Your task to perform on an android device: Open the phone app and click the voicemail tab. Image 0: 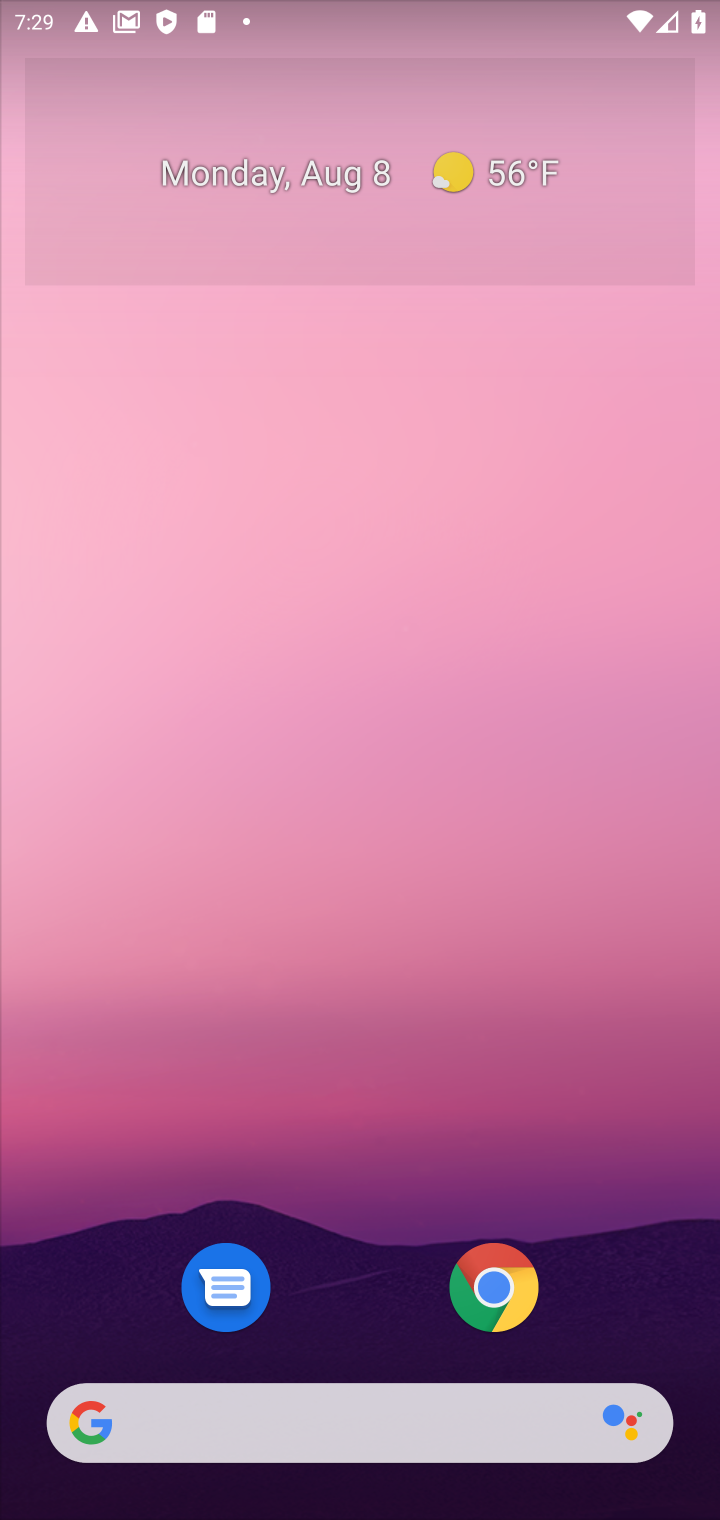
Step 0: drag from (405, 1108) to (468, 41)
Your task to perform on an android device: Open the phone app and click the voicemail tab. Image 1: 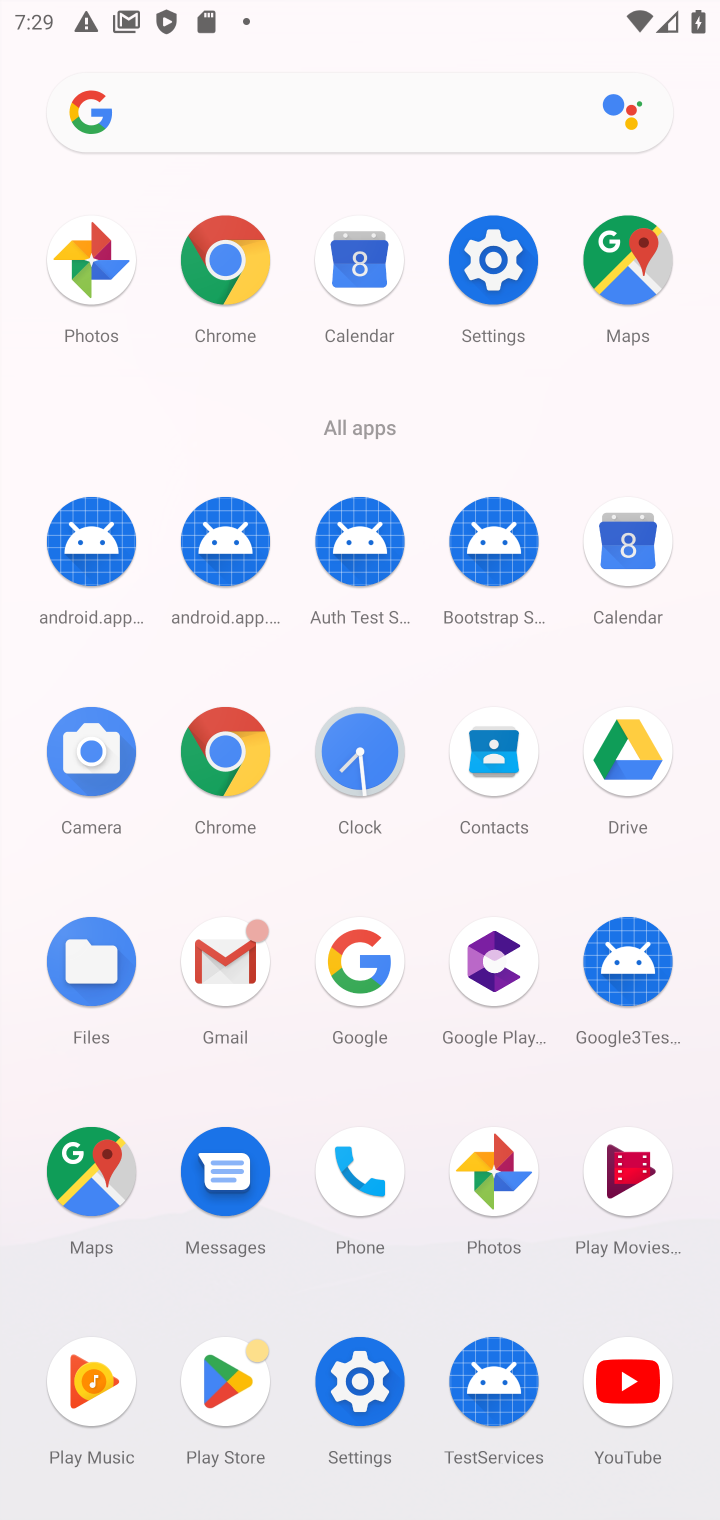
Step 1: click (206, 775)
Your task to perform on an android device: Open the phone app and click the voicemail tab. Image 2: 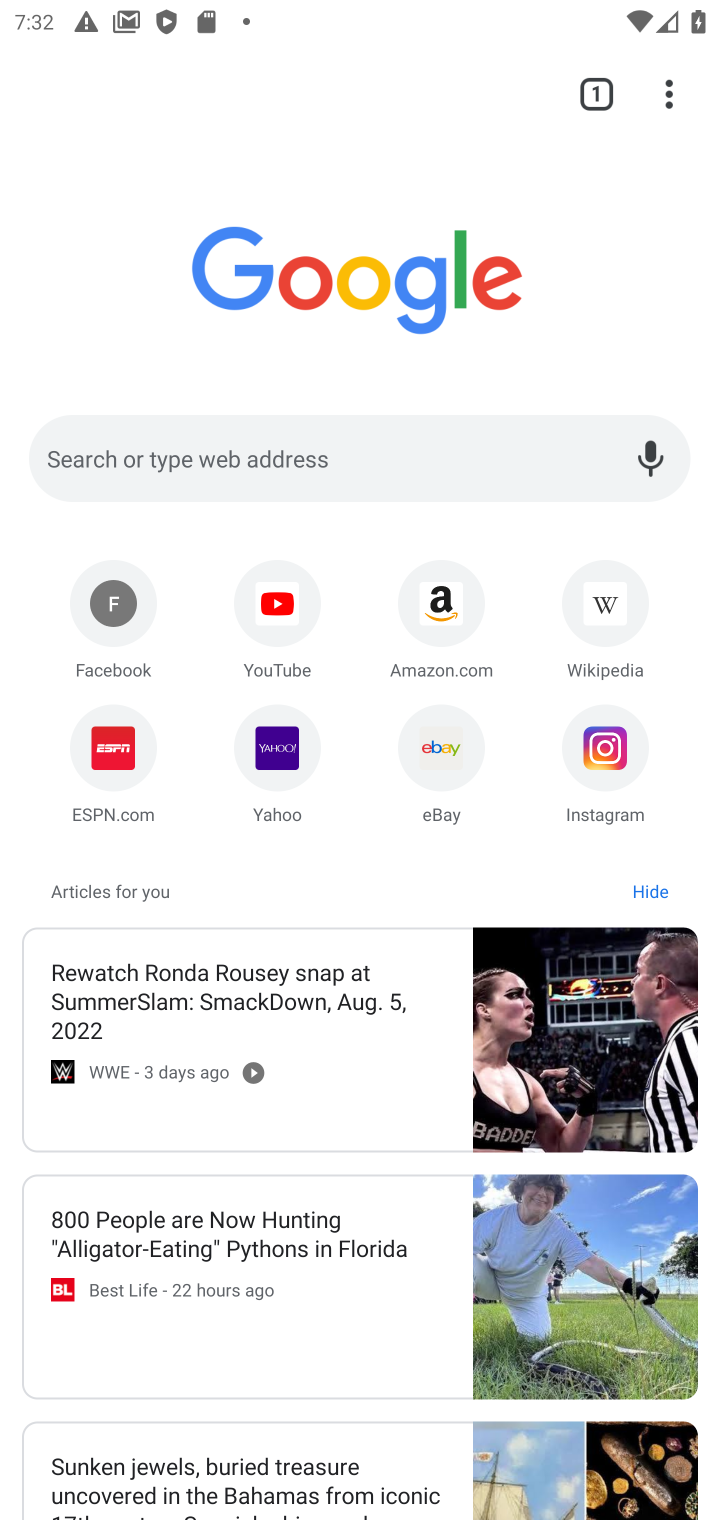
Step 2: task complete